Your task to perform on an android device: find photos in the google photos app Image 0: 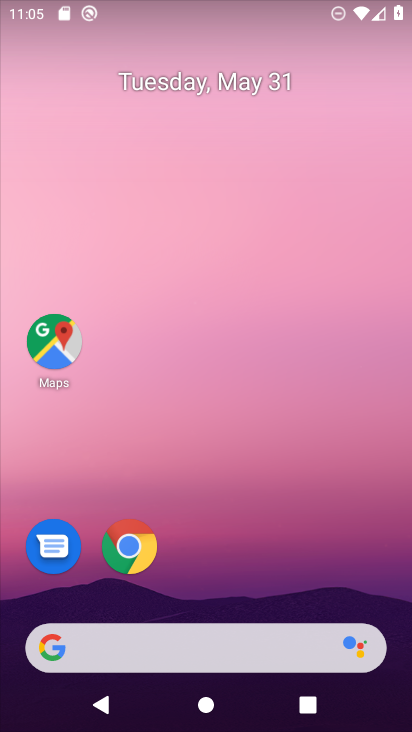
Step 0: drag from (213, 621) to (247, 260)
Your task to perform on an android device: find photos in the google photos app Image 1: 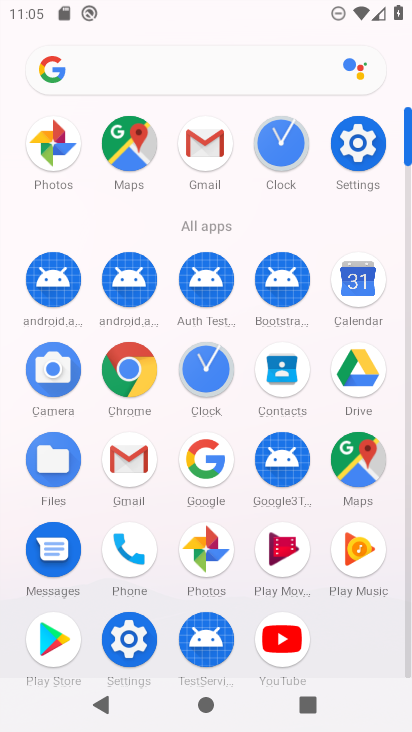
Step 1: click (196, 553)
Your task to perform on an android device: find photos in the google photos app Image 2: 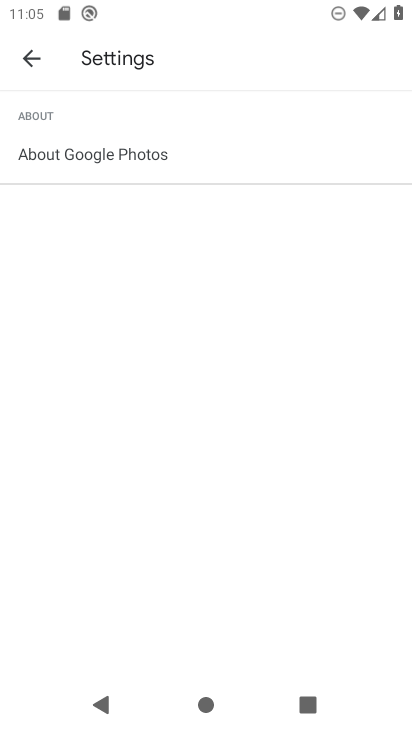
Step 2: press back button
Your task to perform on an android device: find photos in the google photos app Image 3: 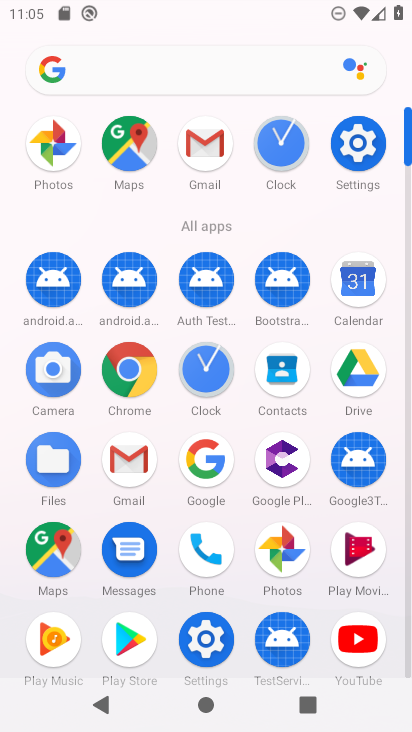
Step 3: click (208, 564)
Your task to perform on an android device: find photos in the google photos app Image 4: 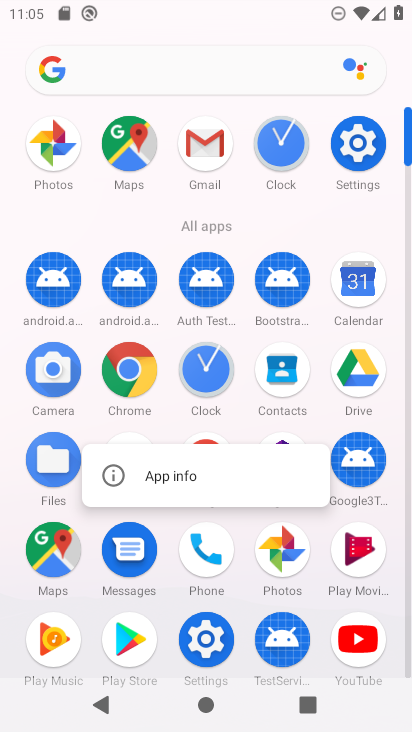
Step 4: click (276, 564)
Your task to perform on an android device: find photos in the google photos app Image 5: 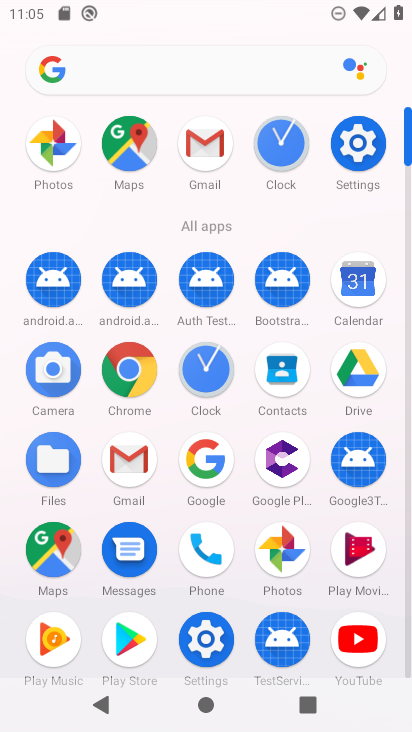
Step 5: click (276, 541)
Your task to perform on an android device: find photos in the google photos app Image 6: 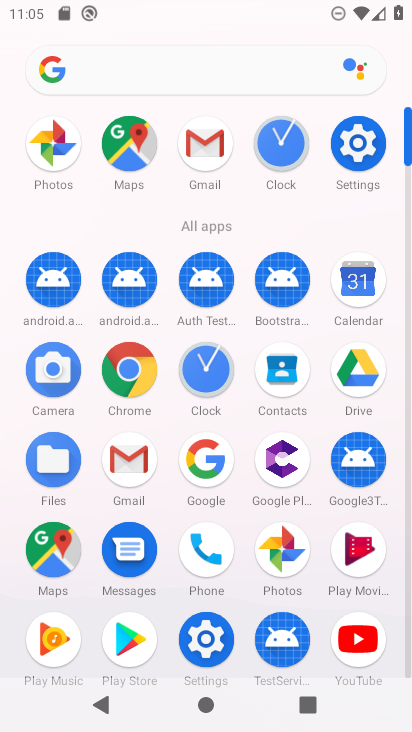
Step 6: click (276, 541)
Your task to perform on an android device: find photos in the google photos app Image 7: 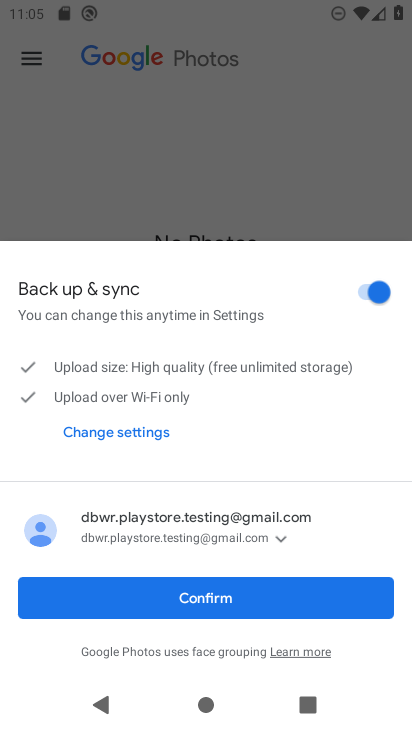
Step 7: click (243, 604)
Your task to perform on an android device: find photos in the google photos app Image 8: 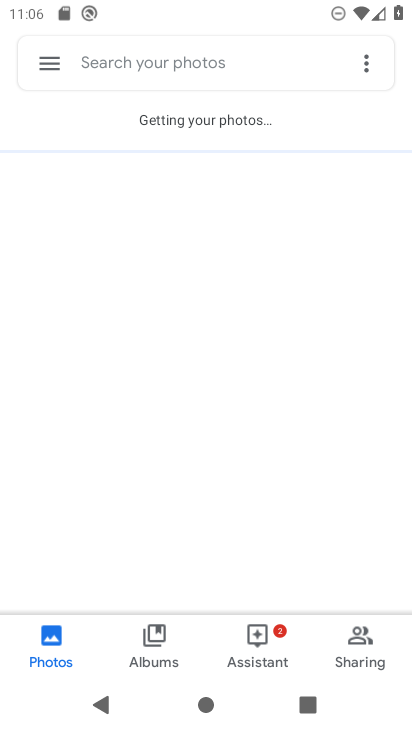
Step 8: task complete